Your task to perform on an android device: turn on wifi Image 0: 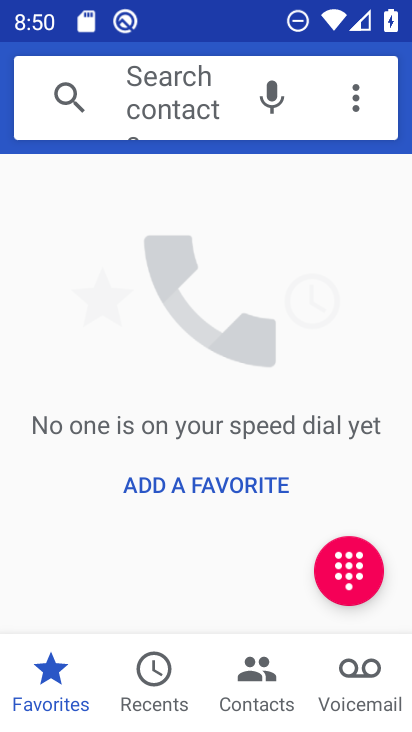
Step 0: press back button
Your task to perform on an android device: turn on wifi Image 1: 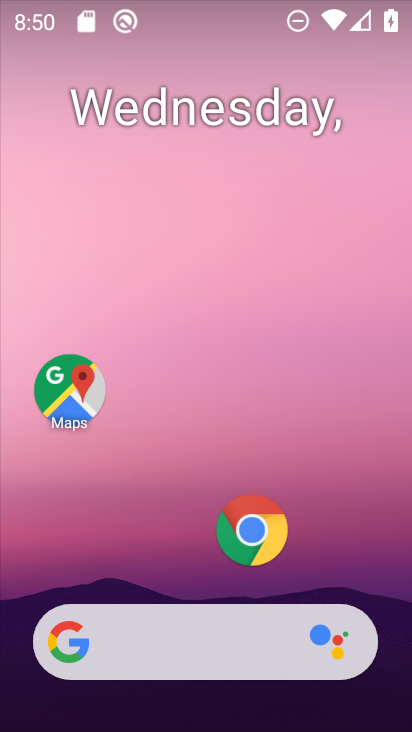
Step 1: task complete